Your task to perform on an android device: Open Chrome and go to the settings page Image 0: 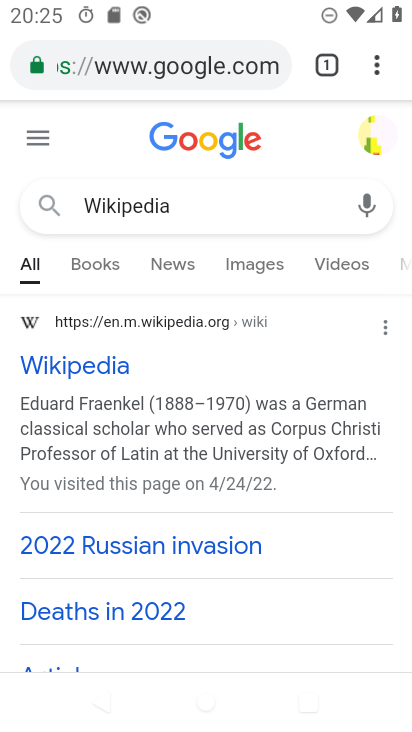
Step 0: click (371, 64)
Your task to perform on an android device: Open Chrome and go to the settings page Image 1: 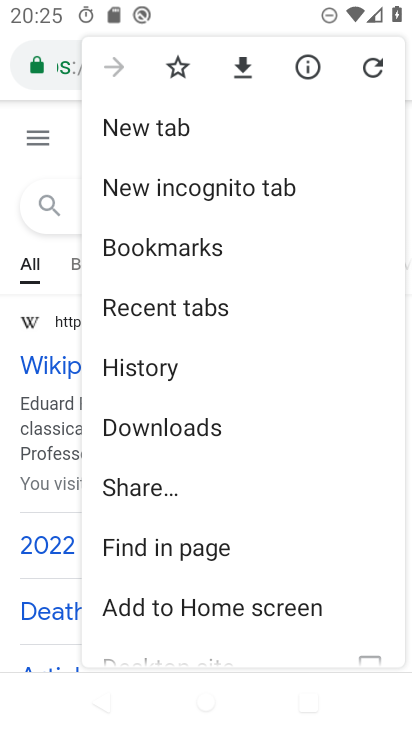
Step 1: drag from (314, 582) to (306, 302)
Your task to perform on an android device: Open Chrome and go to the settings page Image 2: 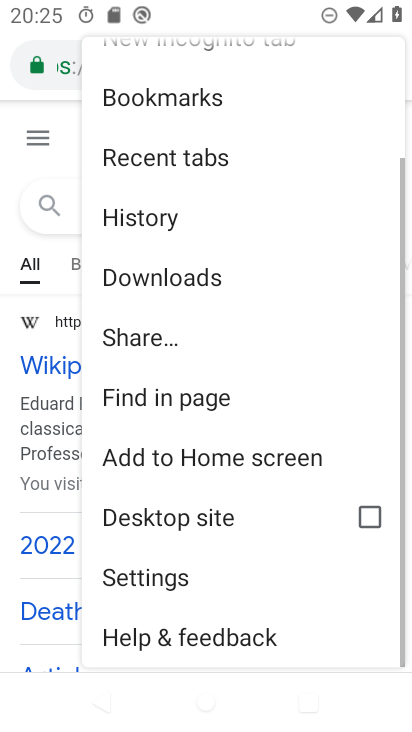
Step 2: click (135, 576)
Your task to perform on an android device: Open Chrome and go to the settings page Image 3: 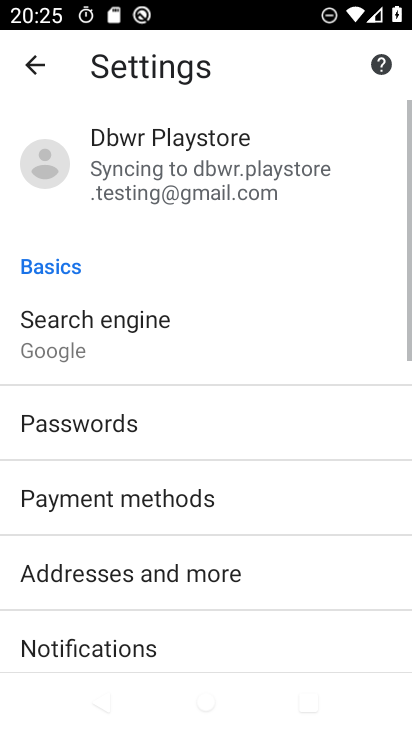
Step 3: task complete